Your task to perform on an android device: change the clock display to show seconds Image 0: 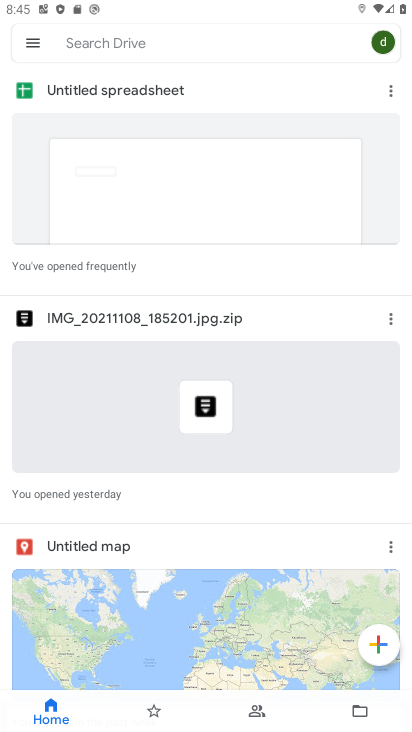
Step 0: press home button
Your task to perform on an android device: change the clock display to show seconds Image 1: 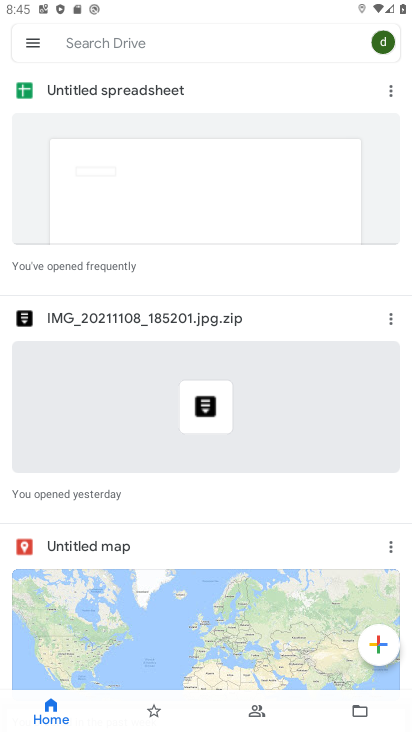
Step 1: press home button
Your task to perform on an android device: change the clock display to show seconds Image 2: 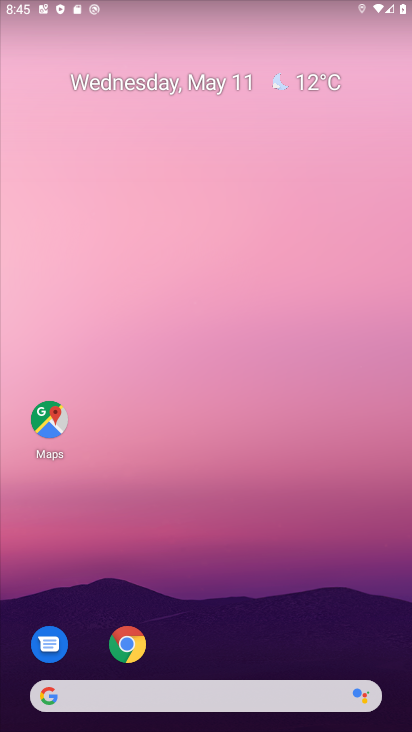
Step 2: drag from (260, 609) to (178, 142)
Your task to perform on an android device: change the clock display to show seconds Image 3: 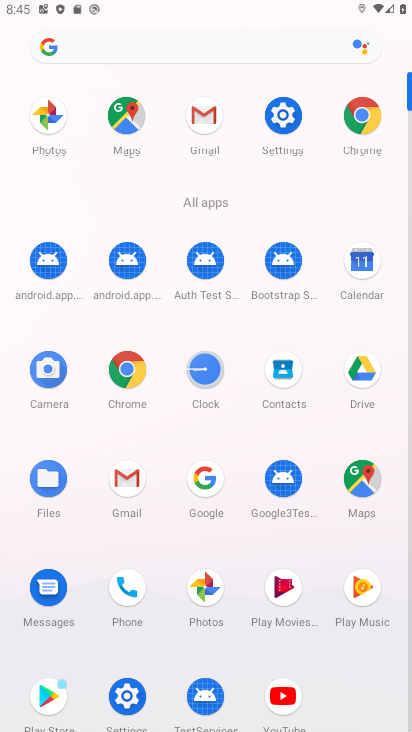
Step 3: click (203, 375)
Your task to perform on an android device: change the clock display to show seconds Image 4: 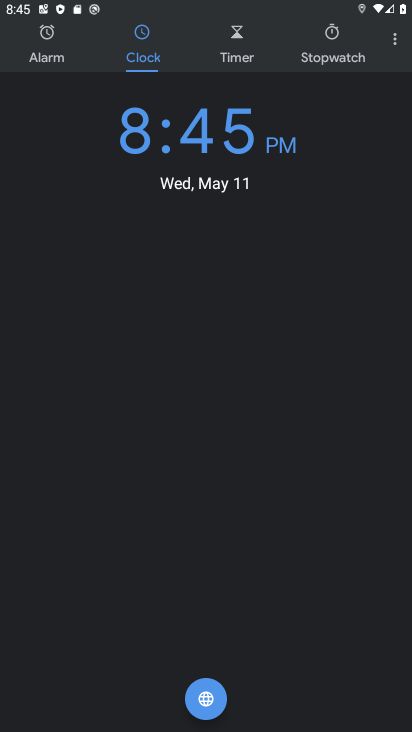
Step 4: click (396, 37)
Your task to perform on an android device: change the clock display to show seconds Image 5: 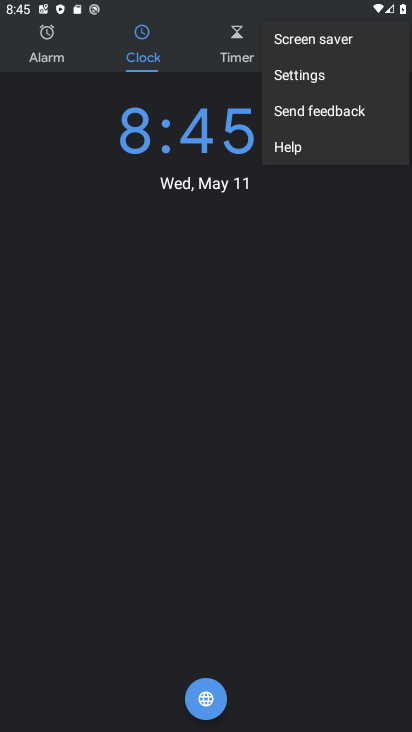
Step 5: click (298, 79)
Your task to perform on an android device: change the clock display to show seconds Image 6: 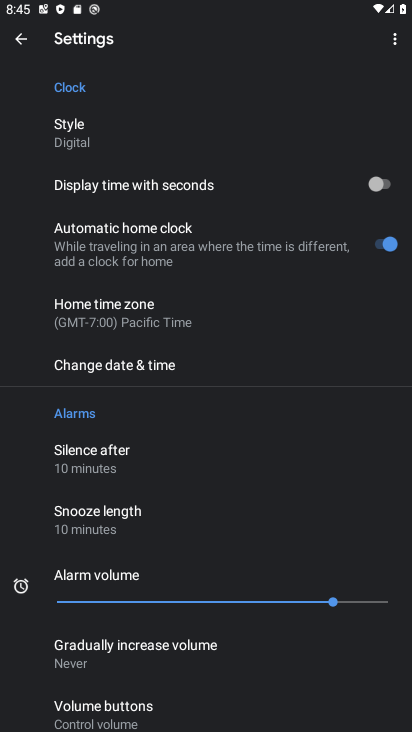
Step 6: click (380, 180)
Your task to perform on an android device: change the clock display to show seconds Image 7: 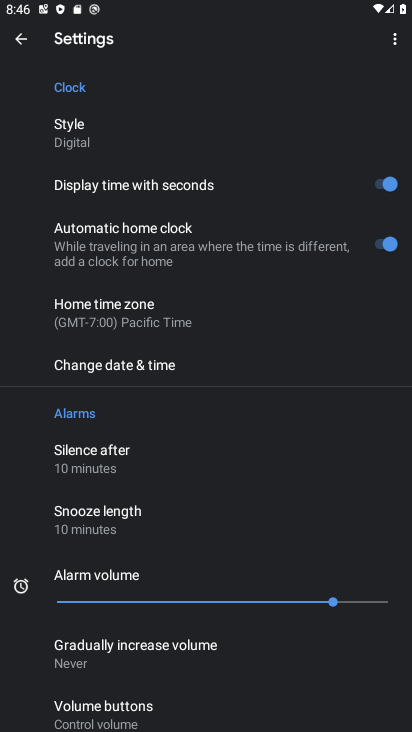
Step 7: task complete